Your task to perform on an android device: change timer sound Image 0: 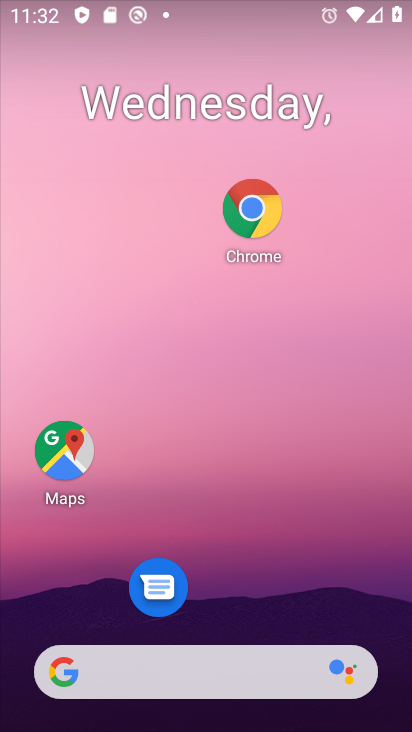
Step 0: drag from (237, 637) to (233, 71)
Your task to perform on an android device: change timer sound Image 1: 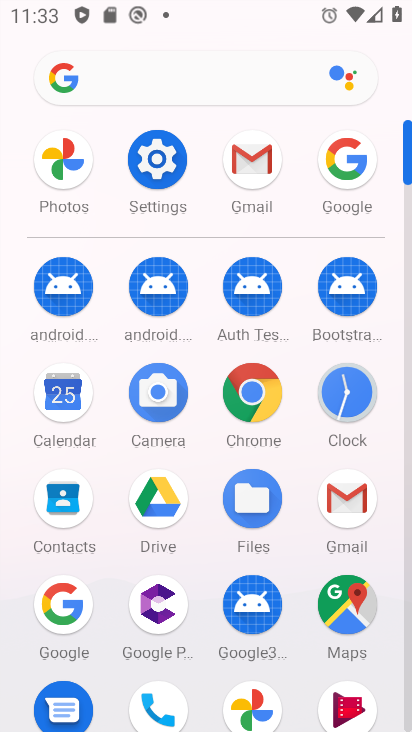
Step 1: click (339, 398)
Your task to perform on an android device: change timer sound Image 2: 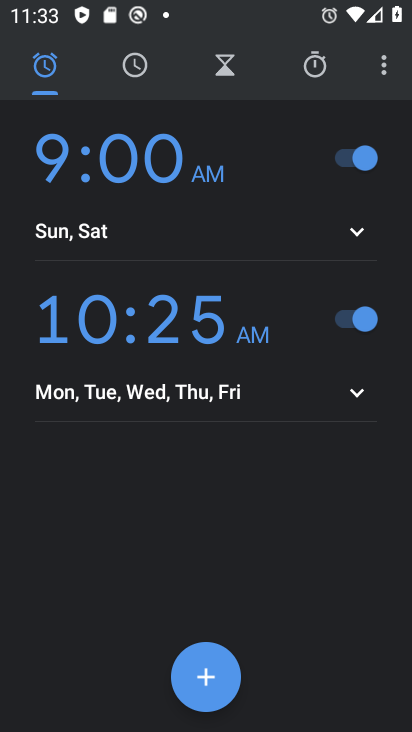
Step 2: click (383, 71)
Your task to perform on an android device: change timer sound Image 3: 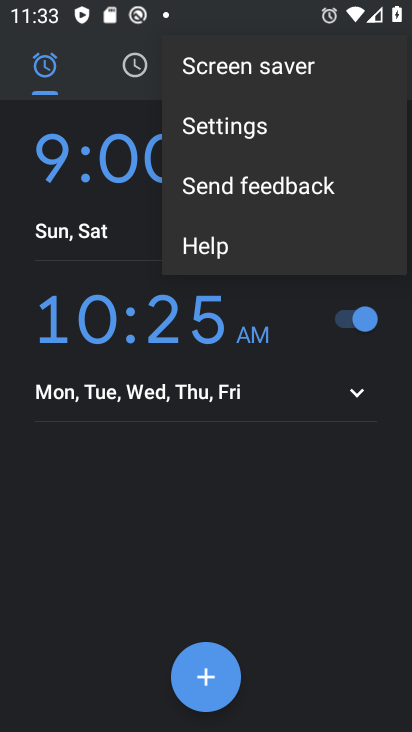
Step 3: click (284, 137)
Your task to perform on an android device: change timer sound Image 4: 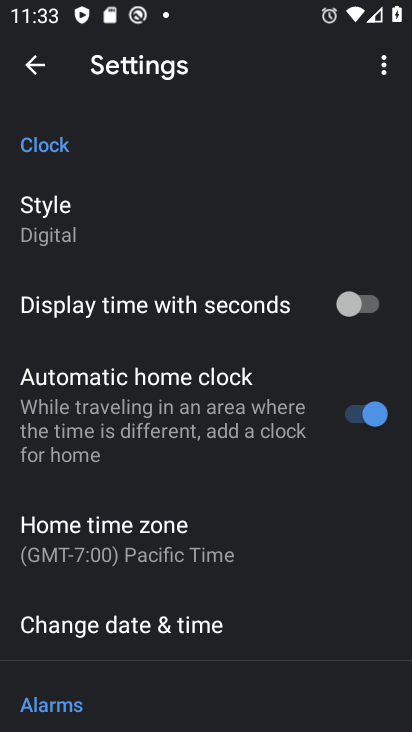
Step 4: drag from (175, 642) to (158, 320)
Your task to perform on an android device: change timer sound Image 5: 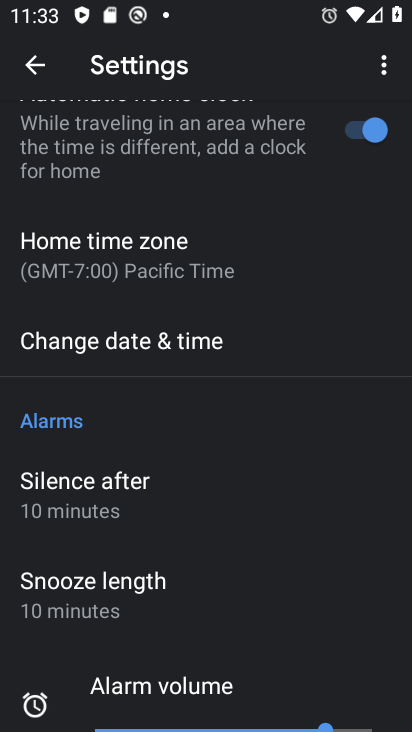
Step 5: drag from (155, 606) to (175, 323)
Your task to perform on an android device: change timer sound Image 6: 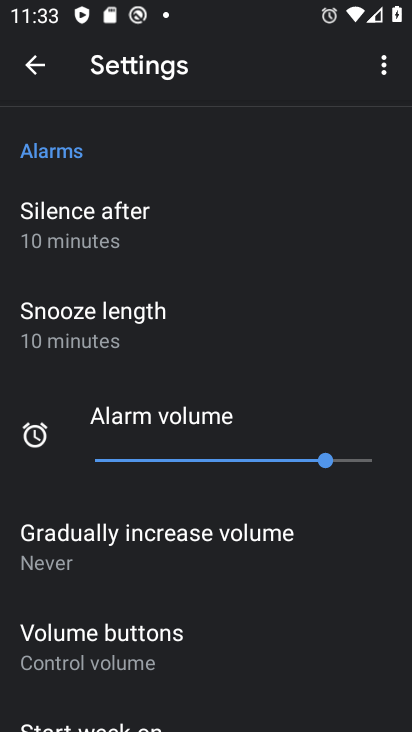
Step 6: drag from (178, 648) to (210, 212)
Your task to perform on an android device: change timer sound Image 7: 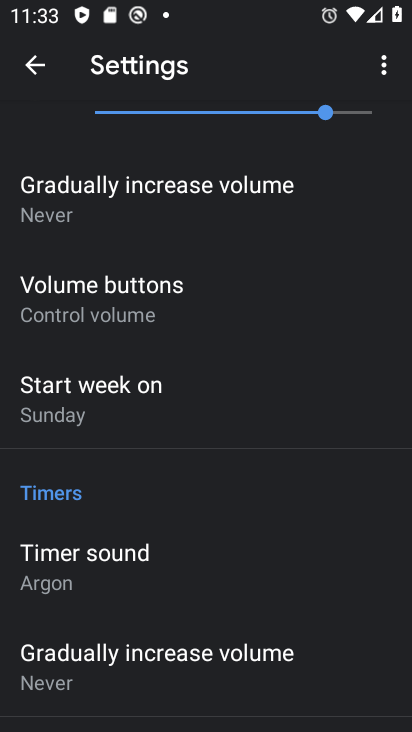
Step 7: click (101, 570)
Your task to perform on an android device: change timer sound Image 8: 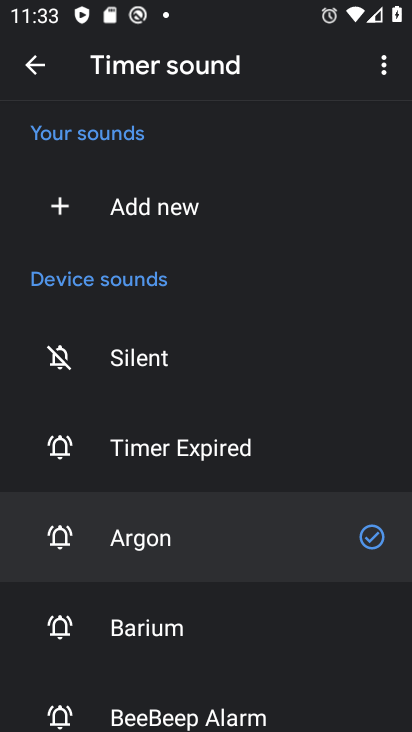
Step 8: click (105, 629)
Your task to perform on an android device: change timer sound Image 9: 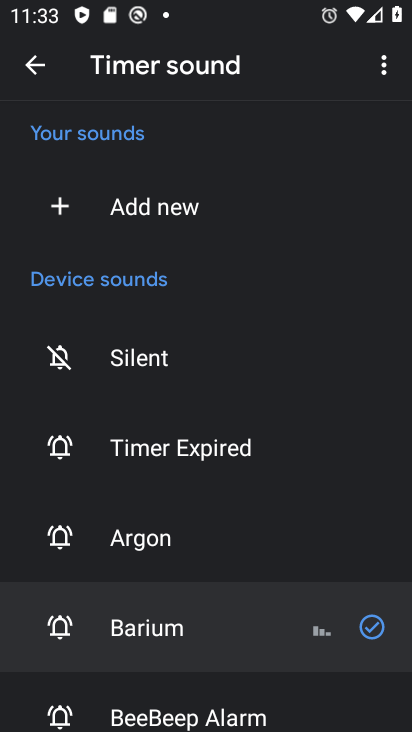
Step 9: task complete